Your task to perform on an android device: Find coffee shops on Maps Image 0: 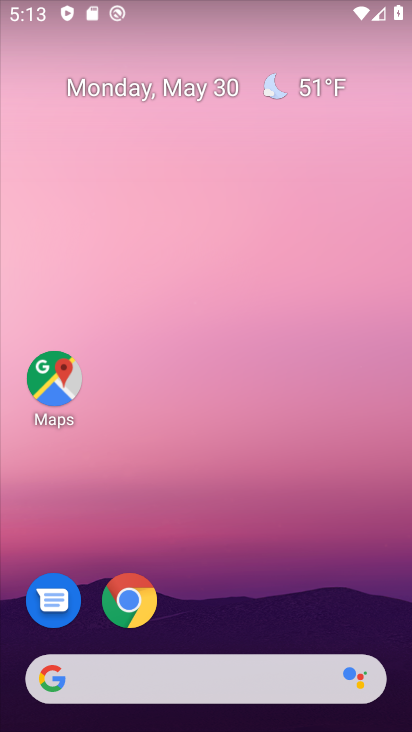
Step 0: click (172, 30)
Your task to perform on an android device: Find coffee shops on Maps Image 1: 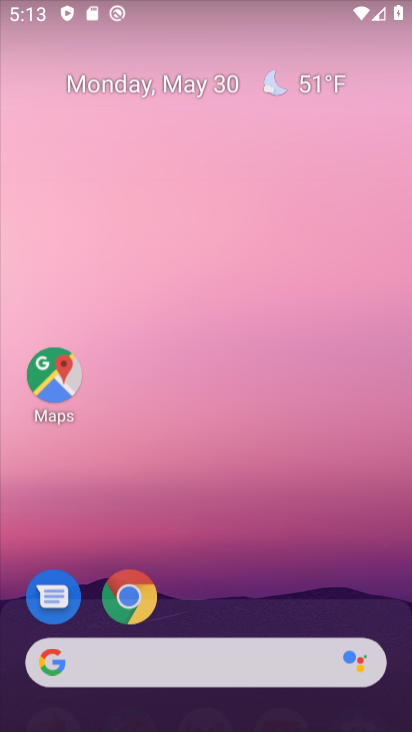
Step 1: drag from (207, 426) to (181, 26)
Your task to perform on an android device: Find coffee shops on Maps Image 2: 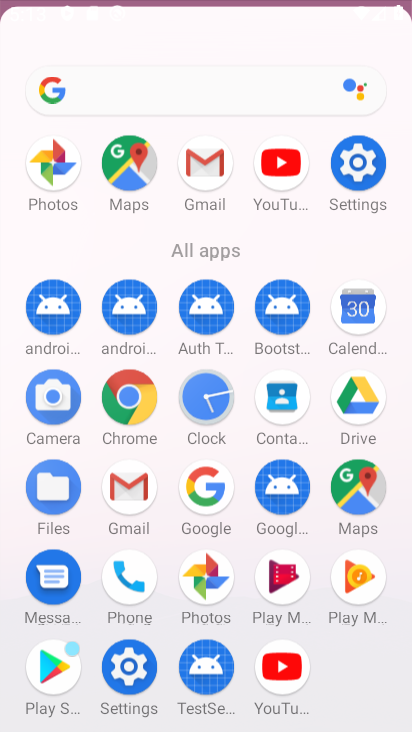
Step 2: drag from (232, 465) to (183, 41)
Your task to perform on an android device: Find coffee shops on Maps Image 3: 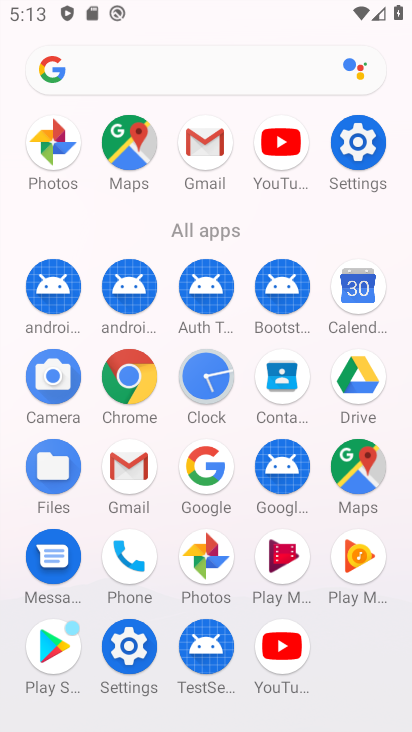
Step 3: click (368, 470)
Your task to perform on an android device: Find coffee shops on Maps Image 4: 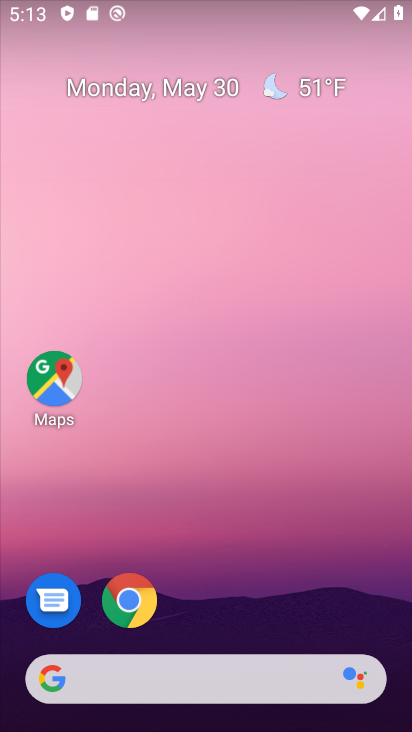
Step 4: drag from (254, 691) to (192, 234)
Your task to perform on an android device: Find coffee shops on Maps Image 5: 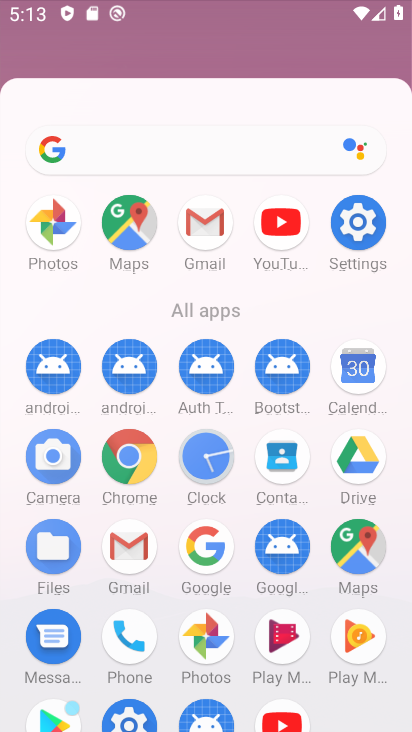
Step 5: drag from (171, 459) to (189, 142)
Your task to perform on an android device: Find coffee shops on Maps Image 6: 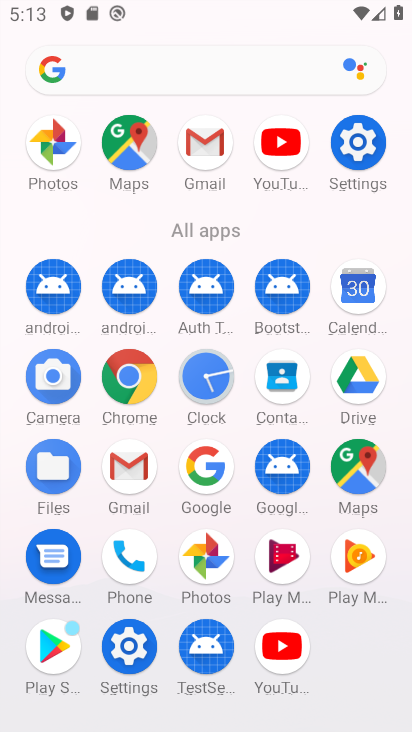
Step 6: click (349, 468)
Your task to perform on an android device: Find coffee shops on Maps Image 7: 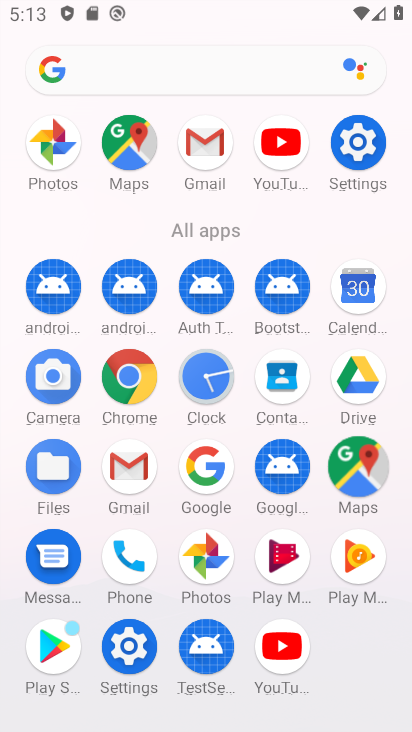
Step 7: click (349, 468)
Your task to perform on an android device: Find coffee shops on Maps Image 8: 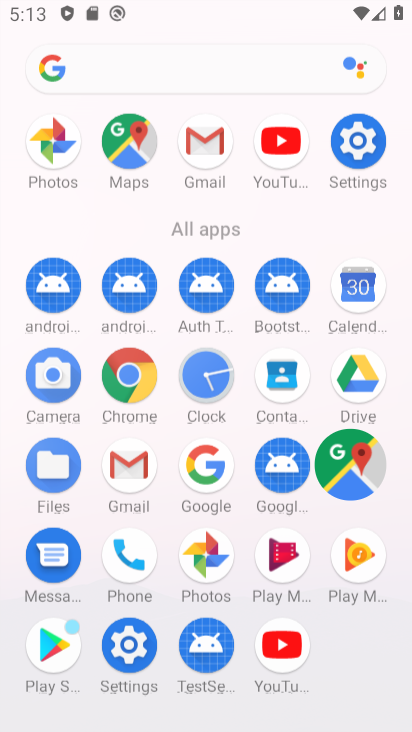
Step 8: click (350, 467)
Your task to perform on an android device: Find coffee shops on Maps Image 9: 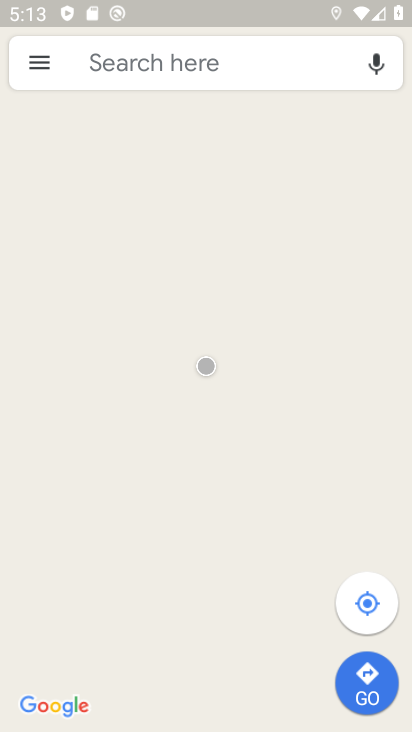
Step 9: click (99, 64)
Your task to perform on an android device: Find coffee shops on Maps Image 10: 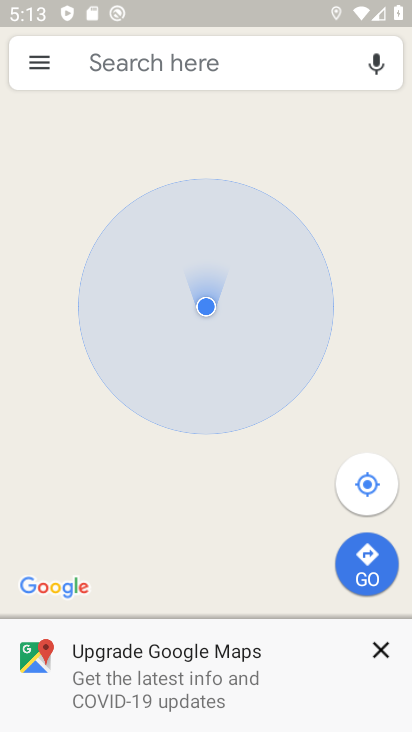
Step 10: click (114, 61)
Your task to perform on an android device: Find coffee shops on Maps Image 11: 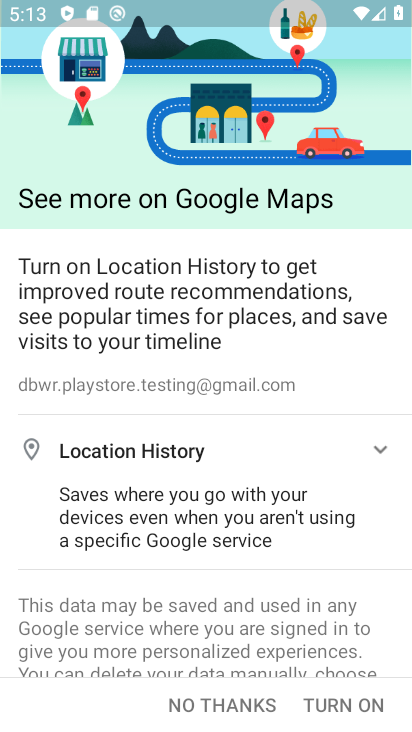
Step 11: click (338, 698)
Your task to perform on an android device: Find coffee shops on Maps Image 12: 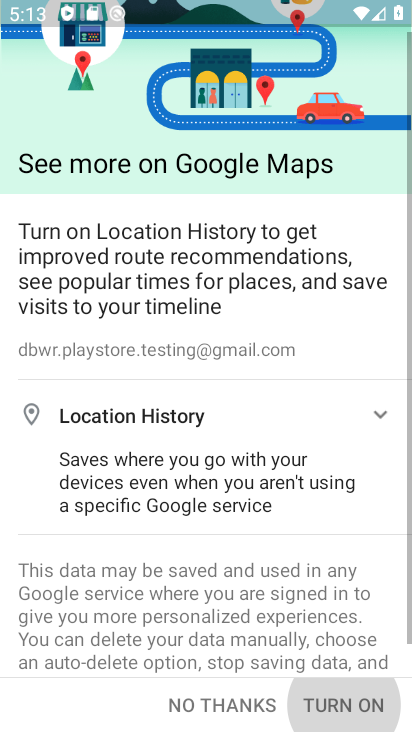
Step 12: click (338, 697)
Your task to perform on an android device: Find coffee shops on Maps Image 13: 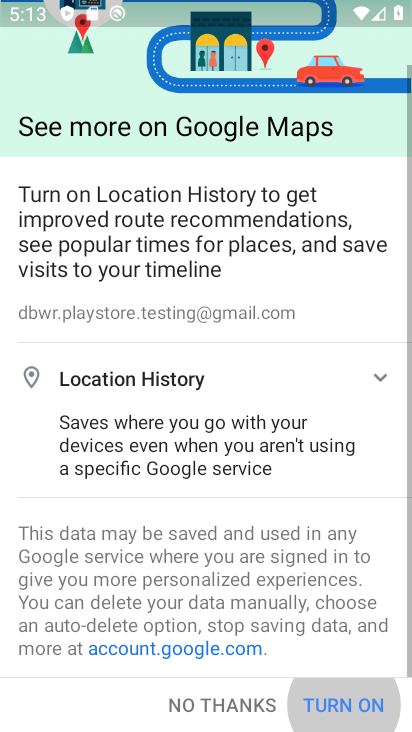
Step 13: click (338, 697)
Your task to perform on an android device: Find coffee shops on Maps Image 14: 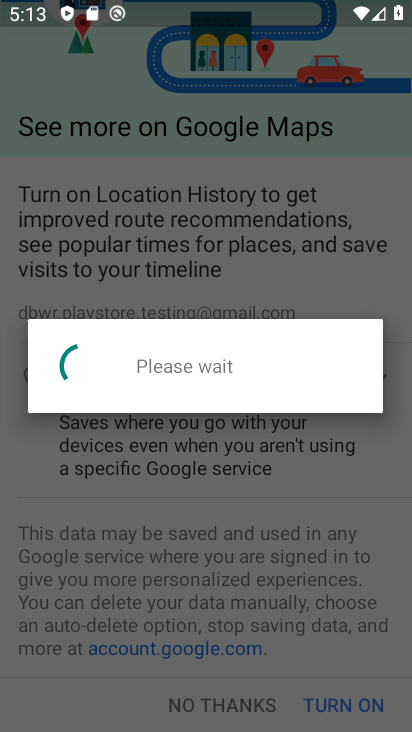
Step 14: click (238, 710)
Your task to perform on an android device: Find coffee shops on Maps Image 15: 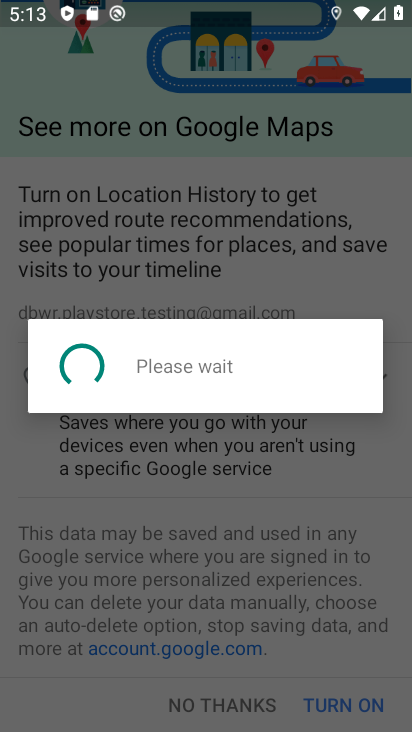
Step 15: click (243, 703)
Your task to perform on an android device: Find coffee shops on Maps Image 16: 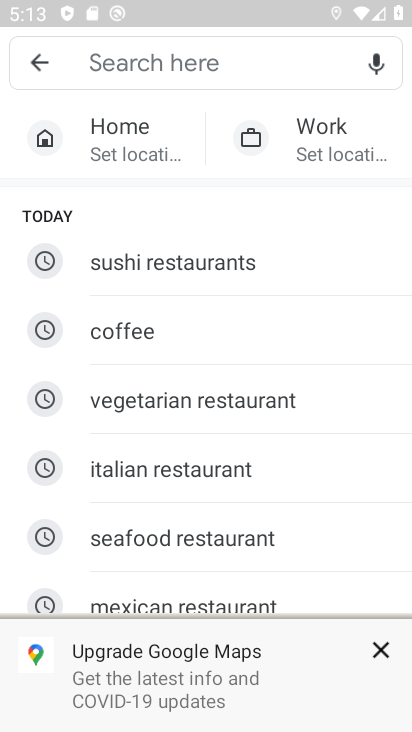
Step 16: click (120, 326)
Your task to perform on an android device: Find coffee shops on Maps Image 17: 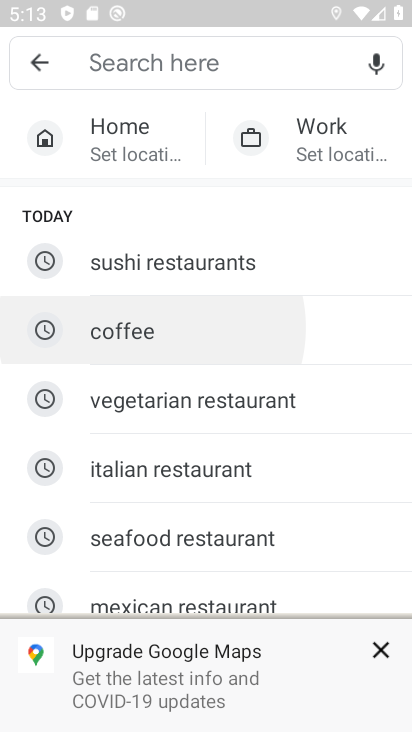
Step 17: click (118, 330)
Your task to perform on an android device: Find coffee shops on Maps Image 18: 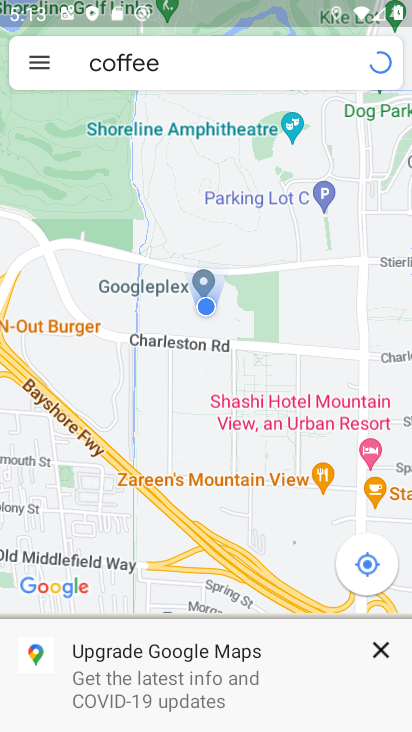
Step 18: task complete